Your task to perform on an android device: check google app version Image 0: 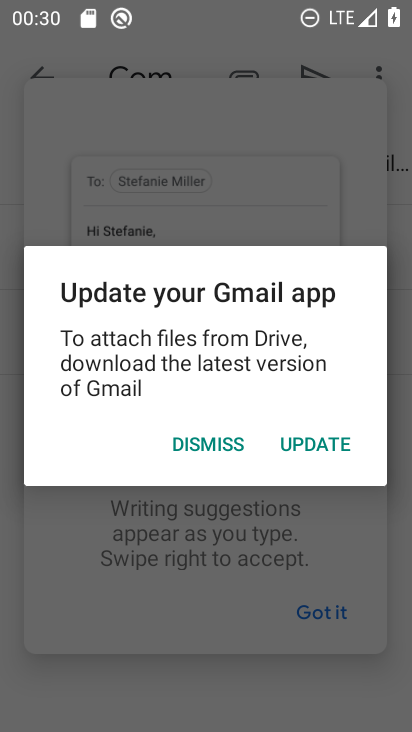
Step 0: press home button
Your task to perform on an android device: check google app version Image 1: 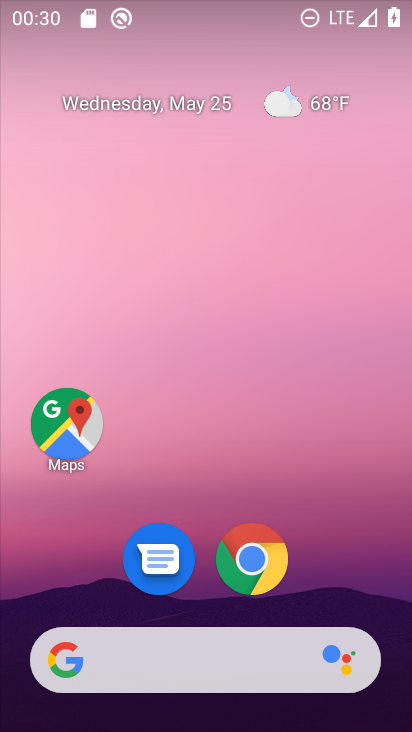
Step 1: click (250, 554)
Your task to perform on an android device: check google app version Image 2: 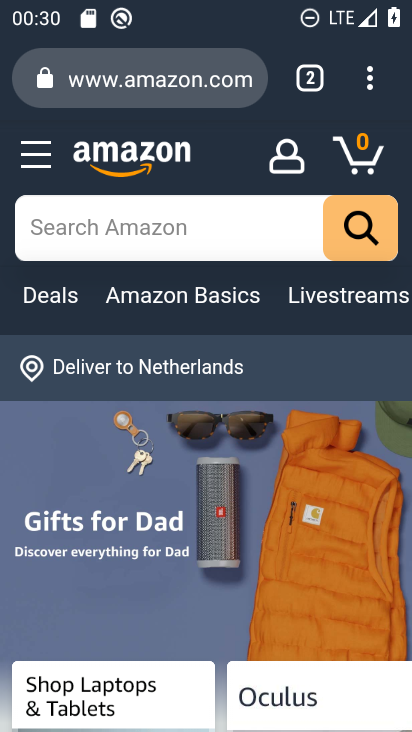
Step 2: click (369, 89)
Your task to perform on an android device: check google app version Image 3: 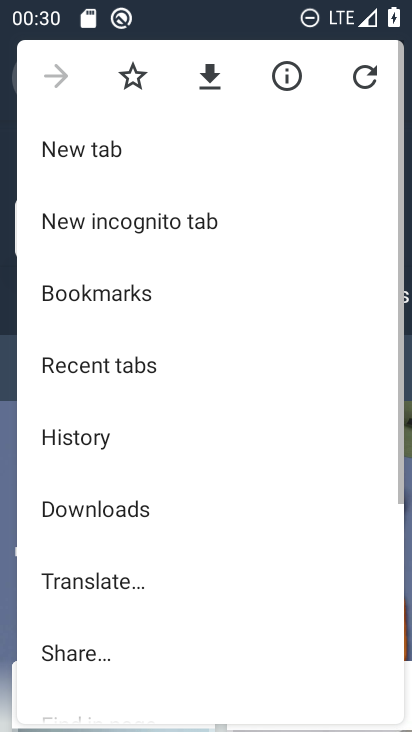
Step 3: drag from (167, 508) to (252, 157)
Your task to perform on an android device: check google app version Image 4: 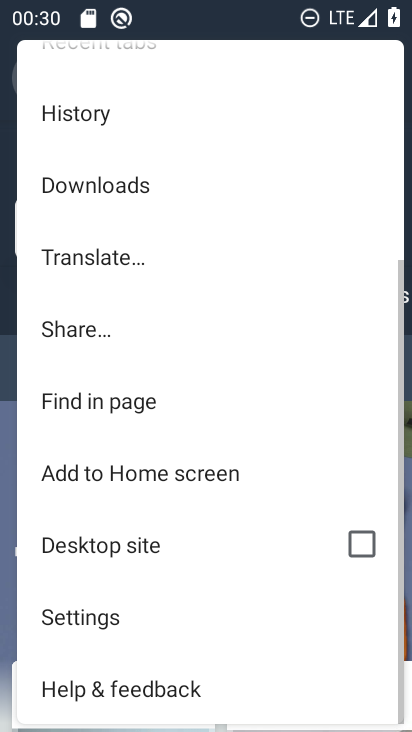
Step 4: click (102, 611)
Your task to perform on an android device: check google app version Image 5: 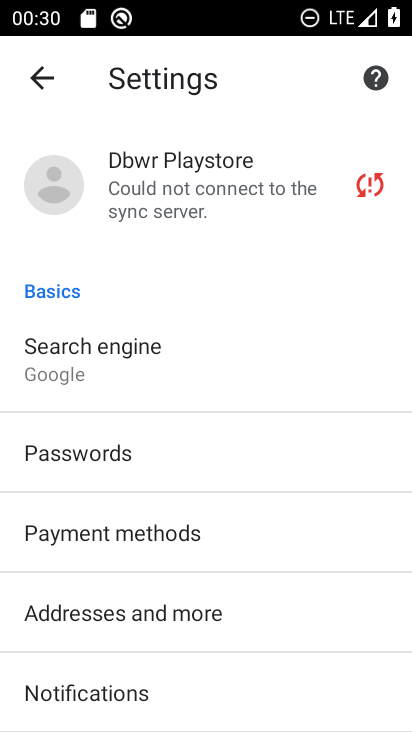
Step 5: drag from (279, 646) to (201, 159)
Your task to perform on an android device: check google app version Image 6: 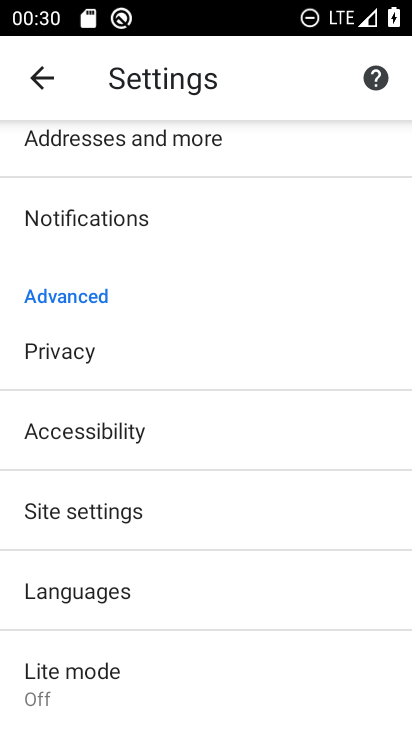
Step 6: drag from (203, 680) to (240, 252)
Your task to perform on an android device: check google app version Image 7: 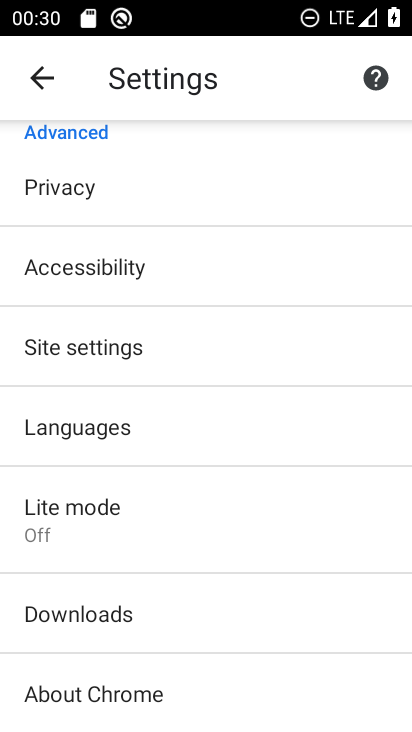
Step 7: click (92, 698)
Your task to perform on an android device: check google app version Image 8: 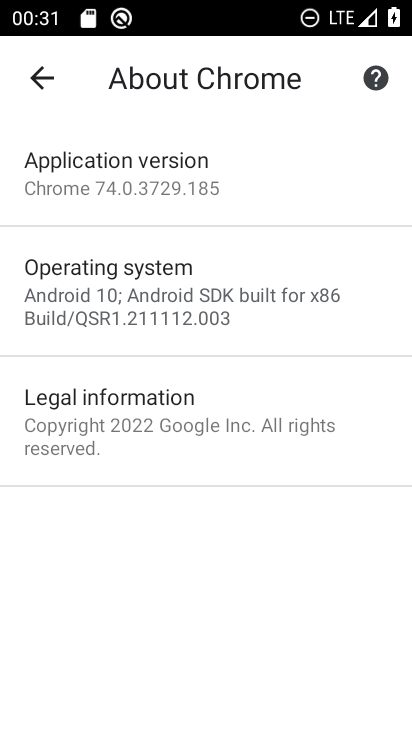
Step 8: task complete